Your task to perform on an android device: Go to network settings Image 0: 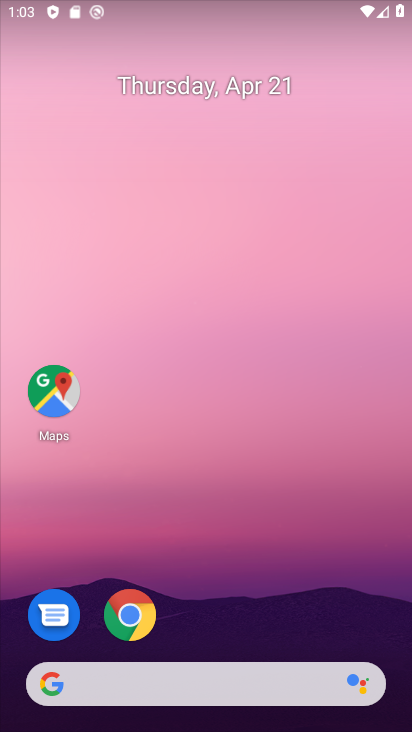
Step 0: drag from (261, 546) to (302, 161)
Your task to perform on an android device: Go to network settings Image 1: 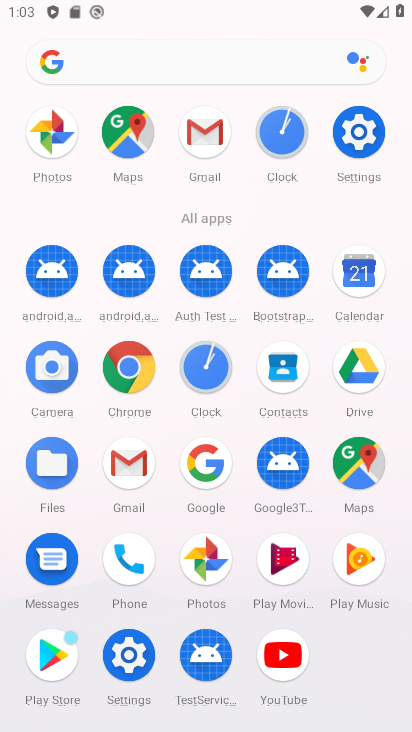
Step 1: click (132, 662)
Your task to perform on an android device: Go to network settings Image 2: 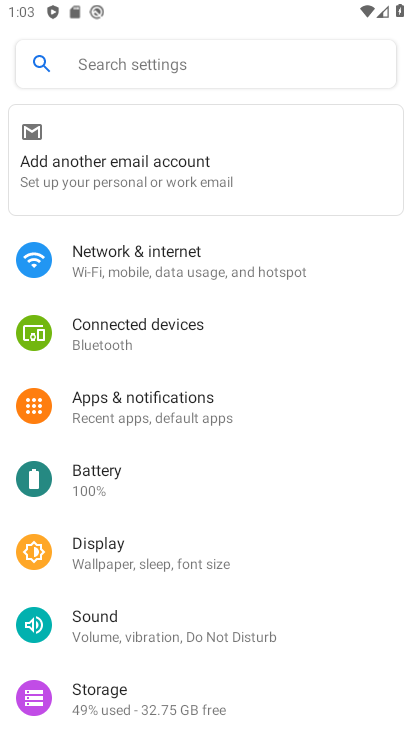
Step 2: click (129, 266)
Your task to perform on an android device: Go to network settings Image 3: 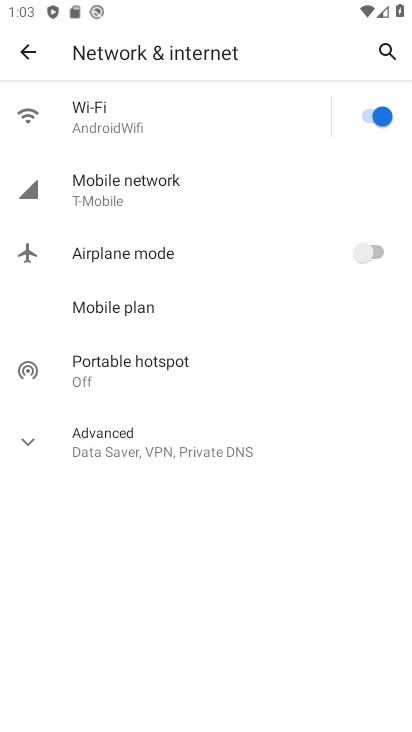
Step 3: task complete